Your task to perform on an android device: Add apple airpods pro to the cart on newegg.com Image 0: 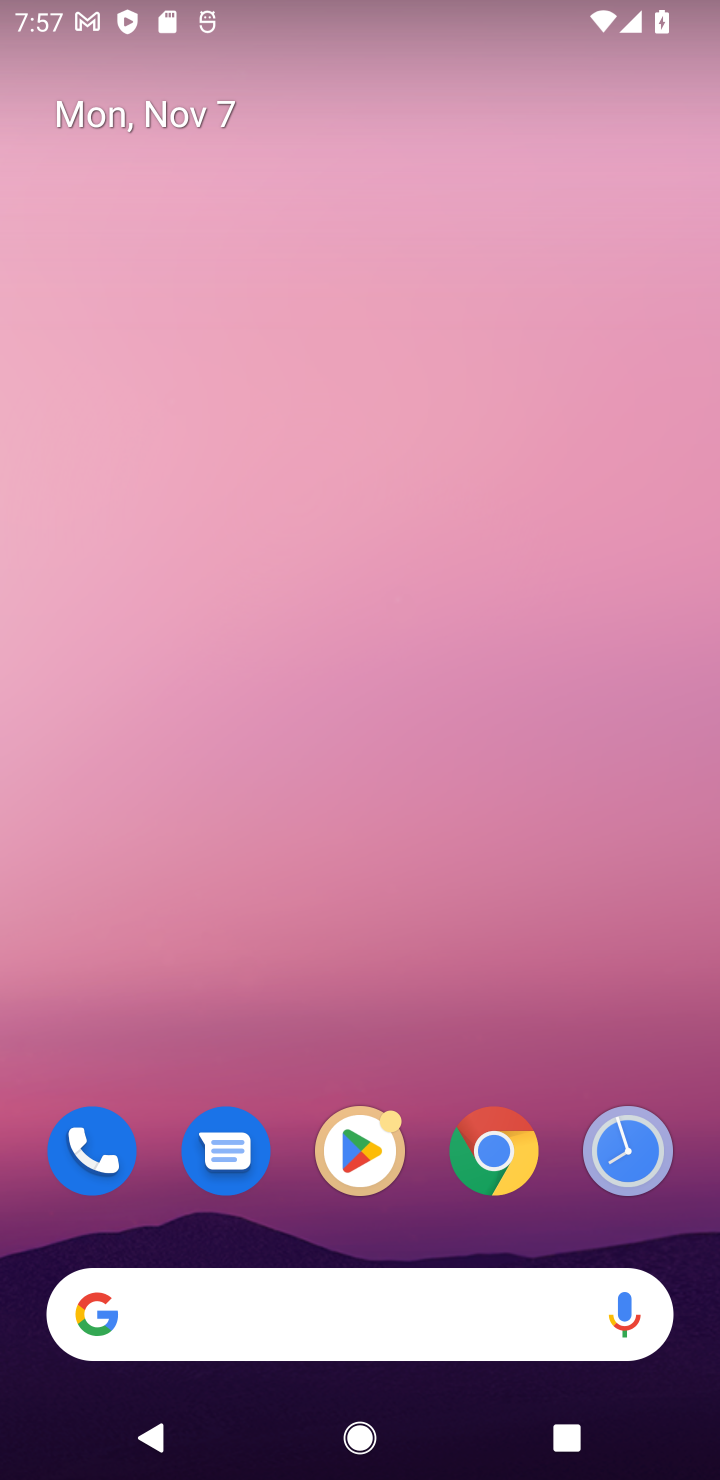
Step 0: click (505, 1146)
Your task to perform on an android device: Add apple airpods pro to the cart on newegg.com Image 1: 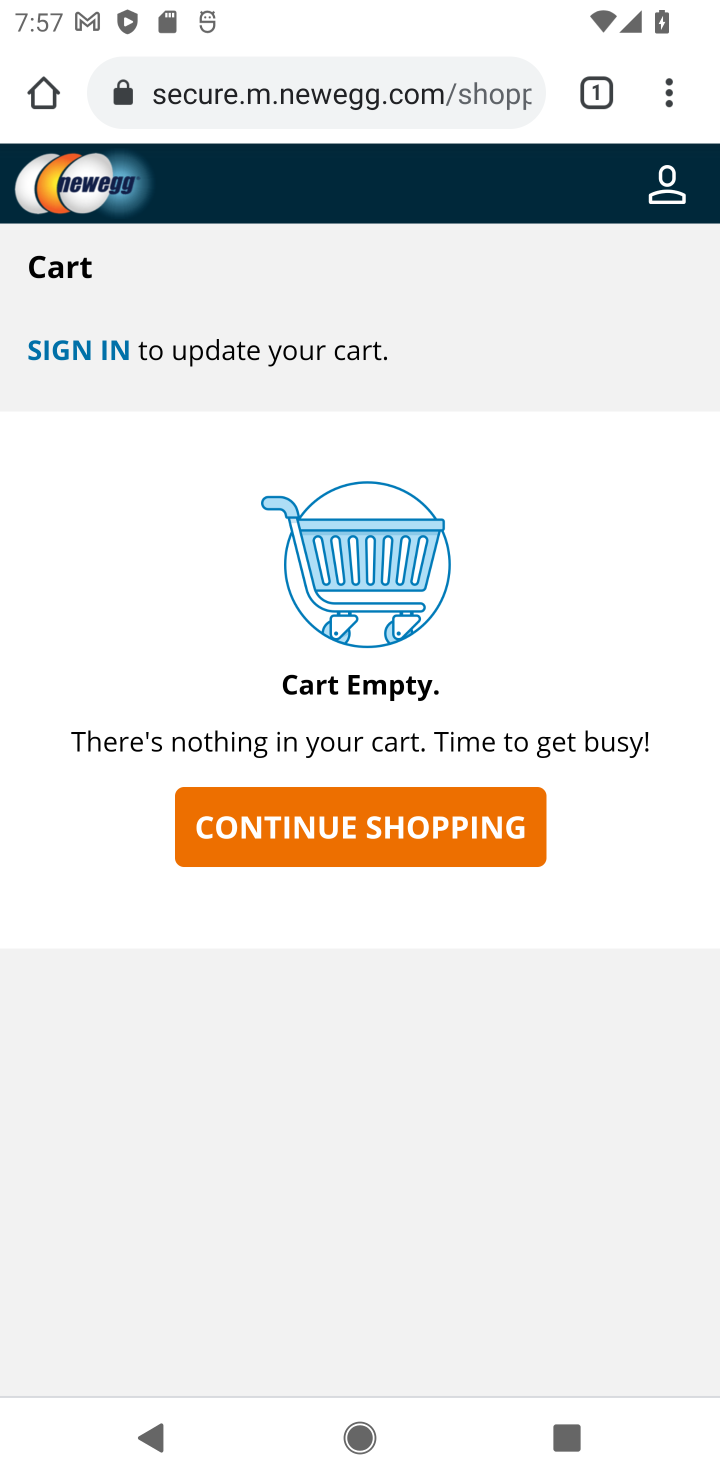
Step 1: press back button
Your task to perform on an android device: Add apple airpods pro to the cart on newegg.com Image 2: 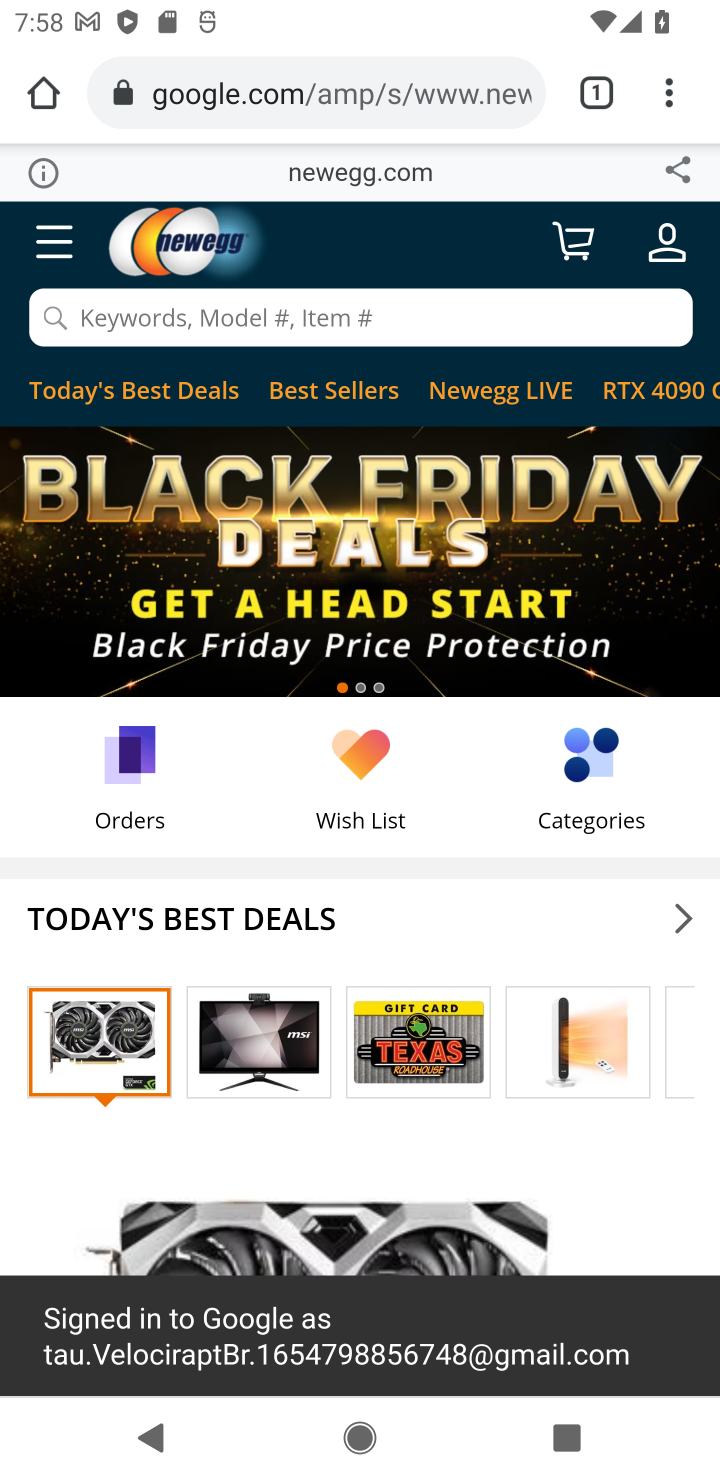
Step 2: click (519, 253)
Your task to perform on an android device: Add apple airpods pro to the cart on newegg.com Image 3: 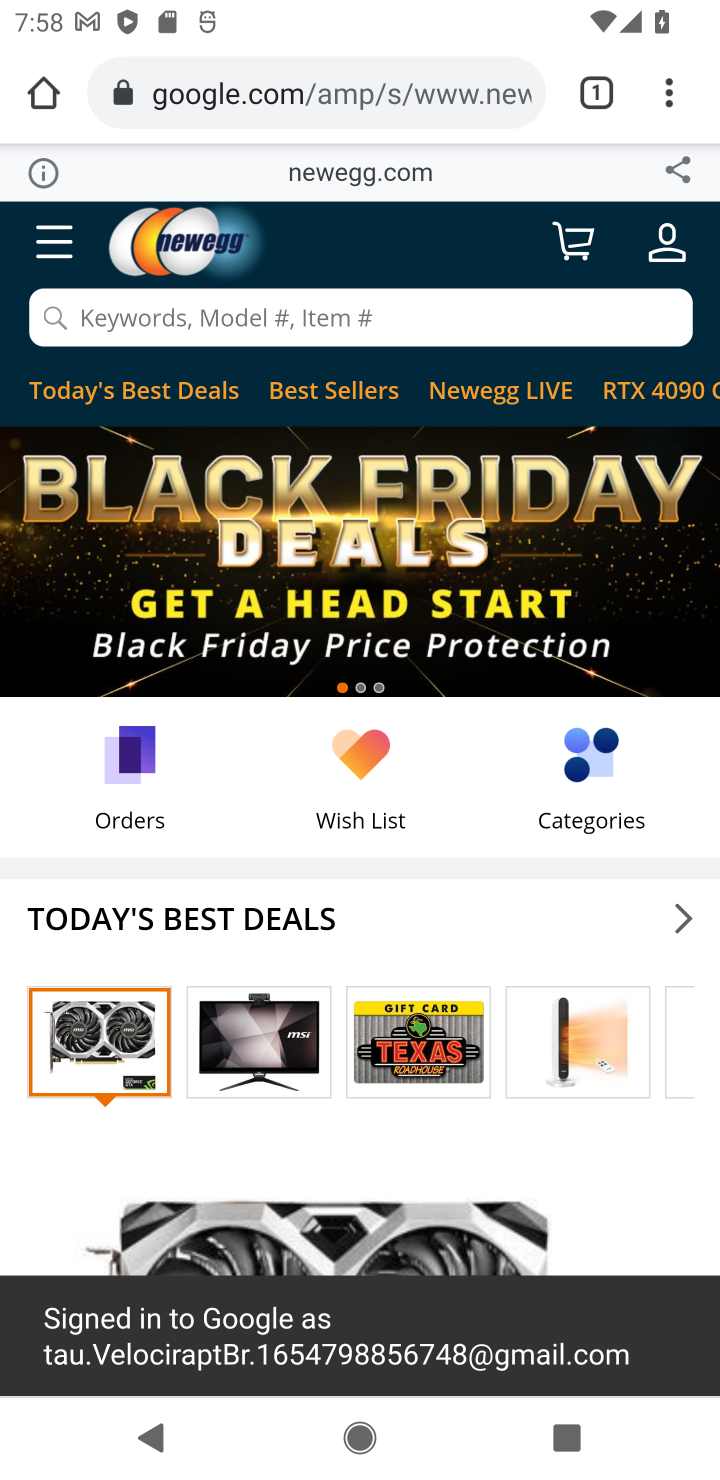
Step 3: click (493, 303)
Your task to perform on an android device: Add apple airpods pro to the cart on newegg.com Image 4: 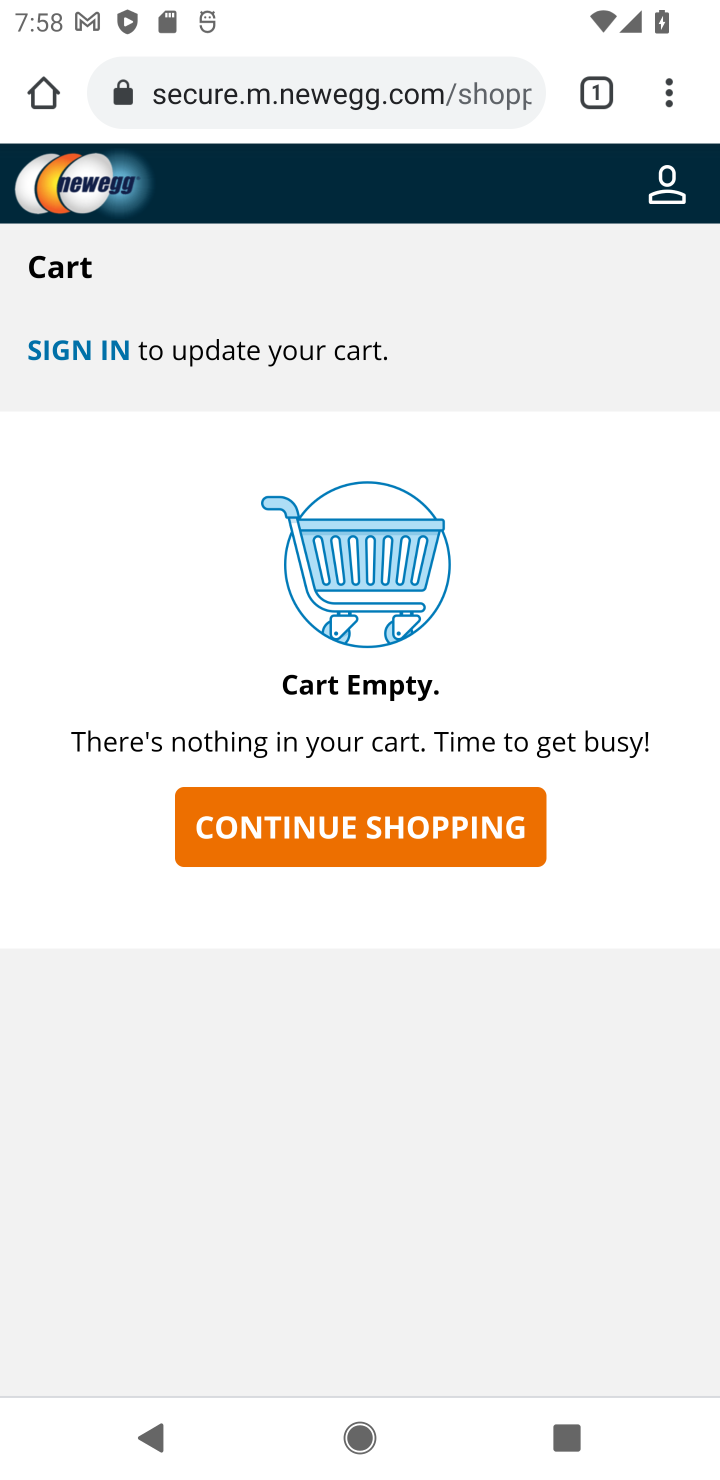
Step 4: press back button
Your task to perform on an android device: Add apple airpods pro to the cart on newegg.com Image 5: 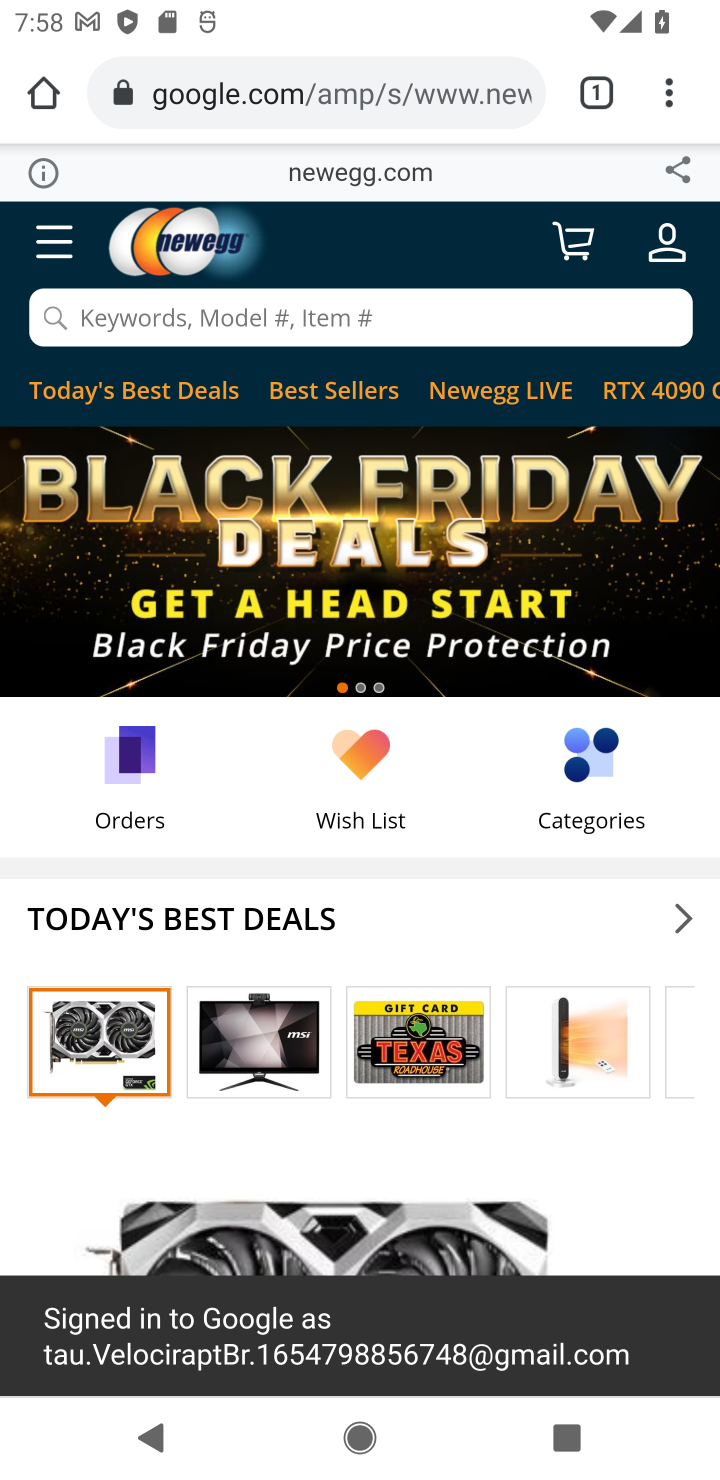
Step 5: click (535, 304)
Your task to perform on an android device: Add apple airpods pro to the cart on newegg.com Image 6: 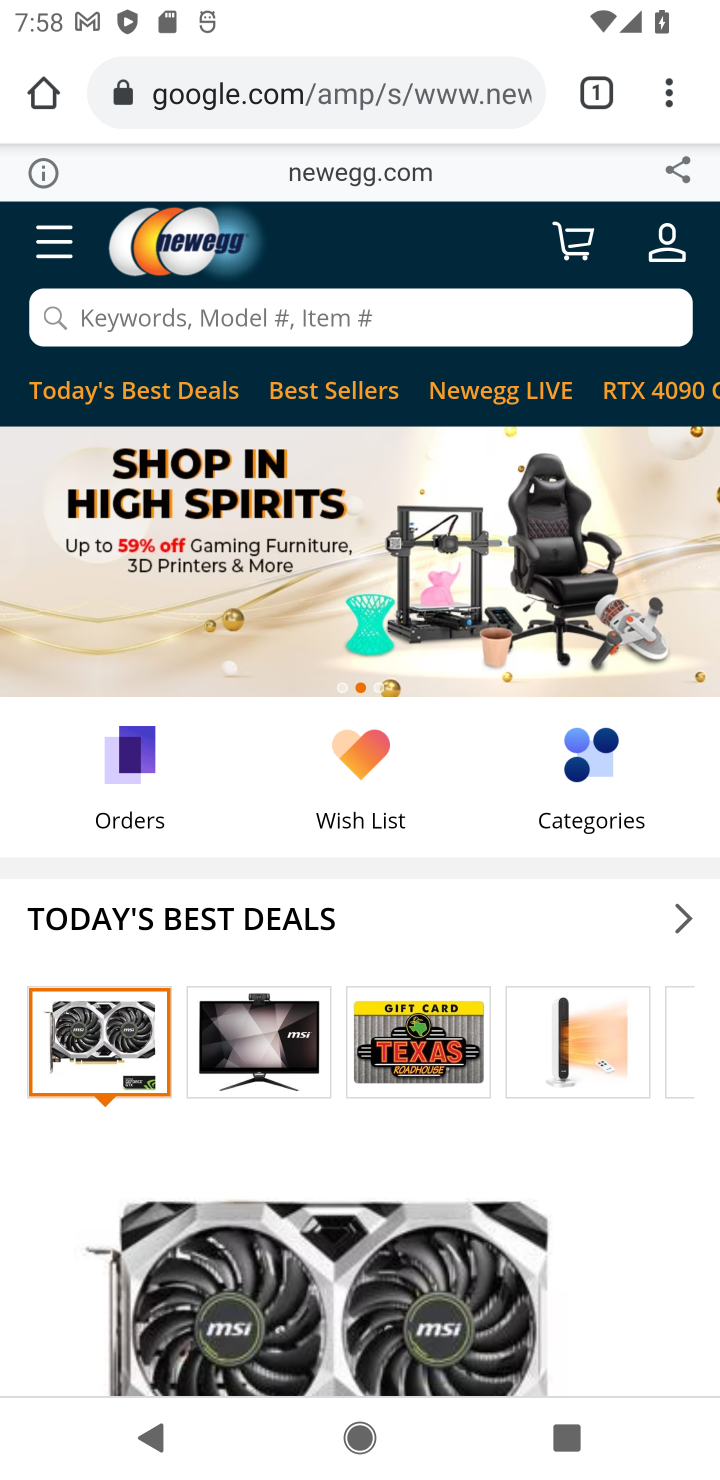
Step 6: type "apple airpods pro"
Your task to perform on an android device: Add apple airpods pro to the cart on newegg.com Image 7: 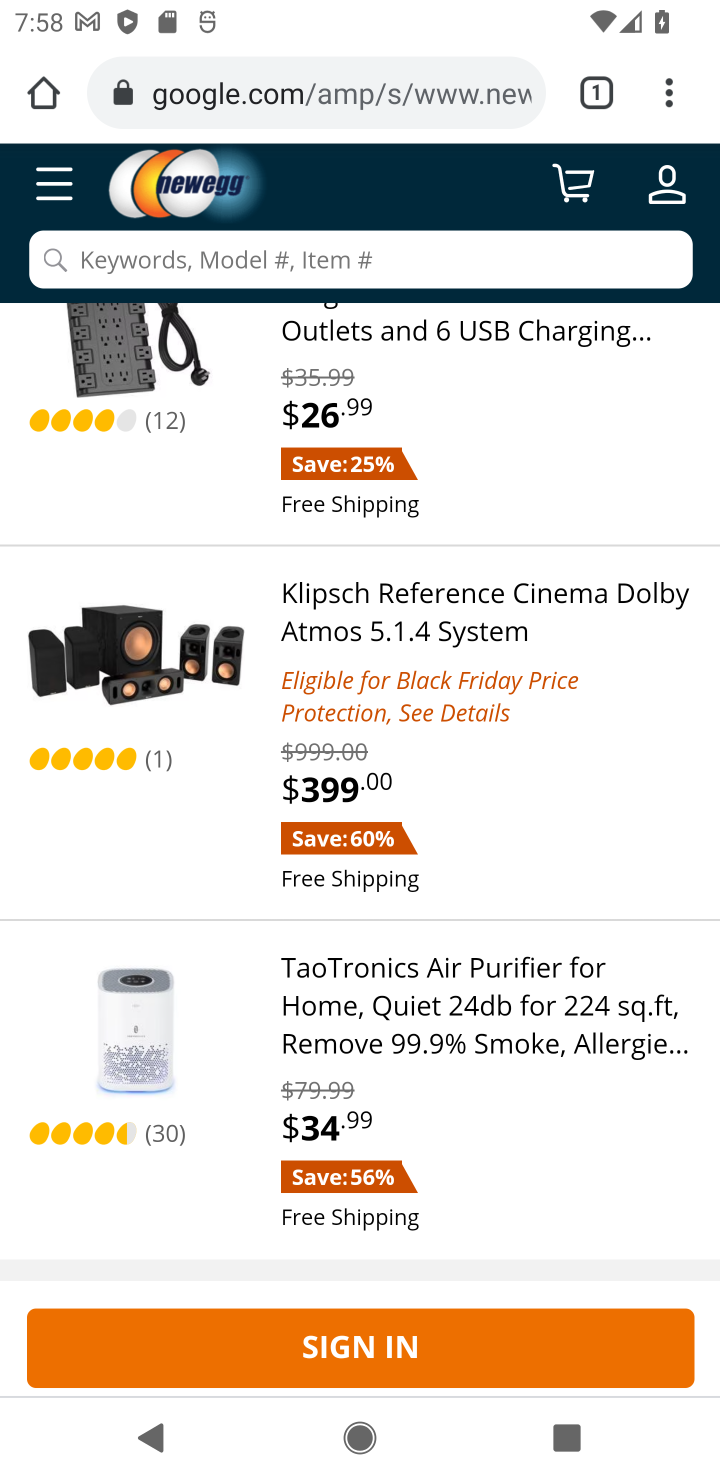
Step 7: drag from (506, 548) to (605, 1307)
Your task to perform on an android device: Add apple airpods pro to the cart on newegg.com Image 8: 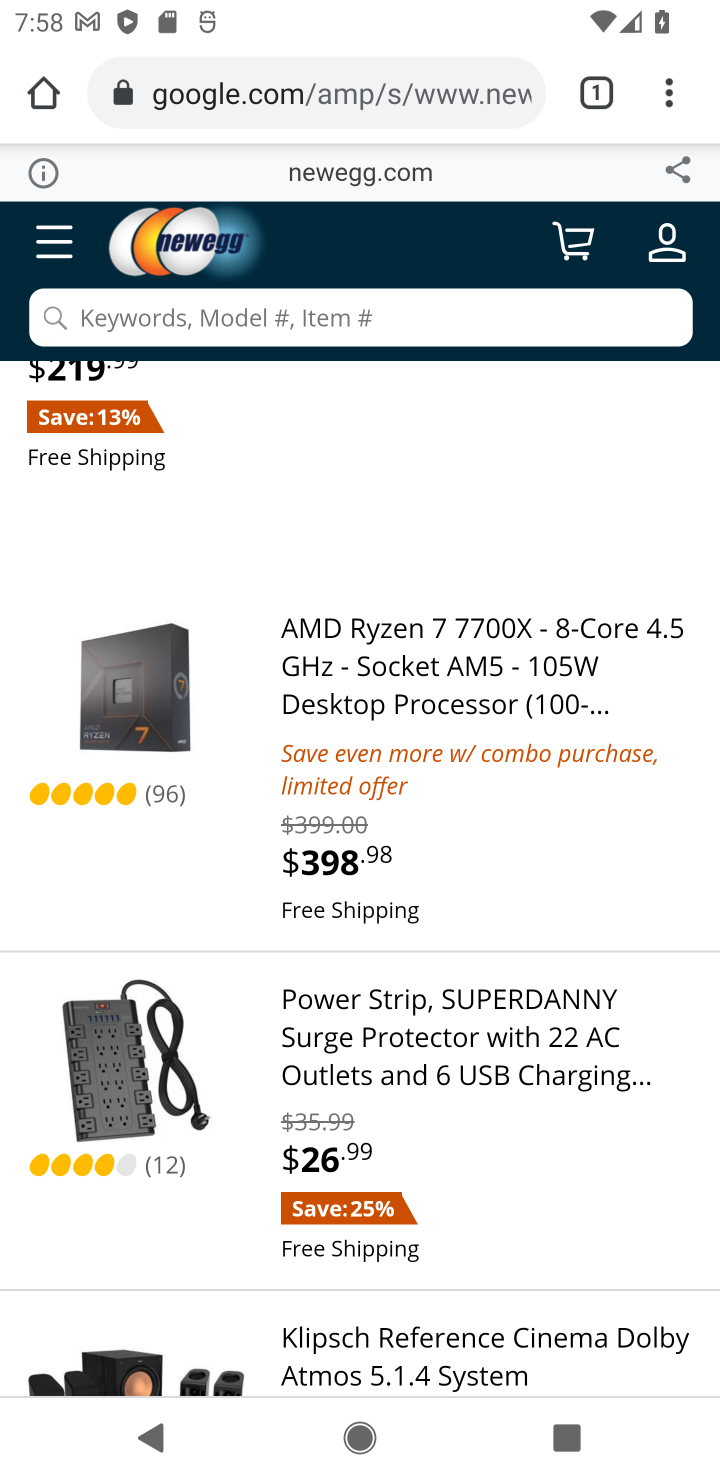
Step 8: drag from (559, 827) to (596, 559)
Your task to perform on an android device: Add apple airpods pro to the cart on newegg.com Image 9: 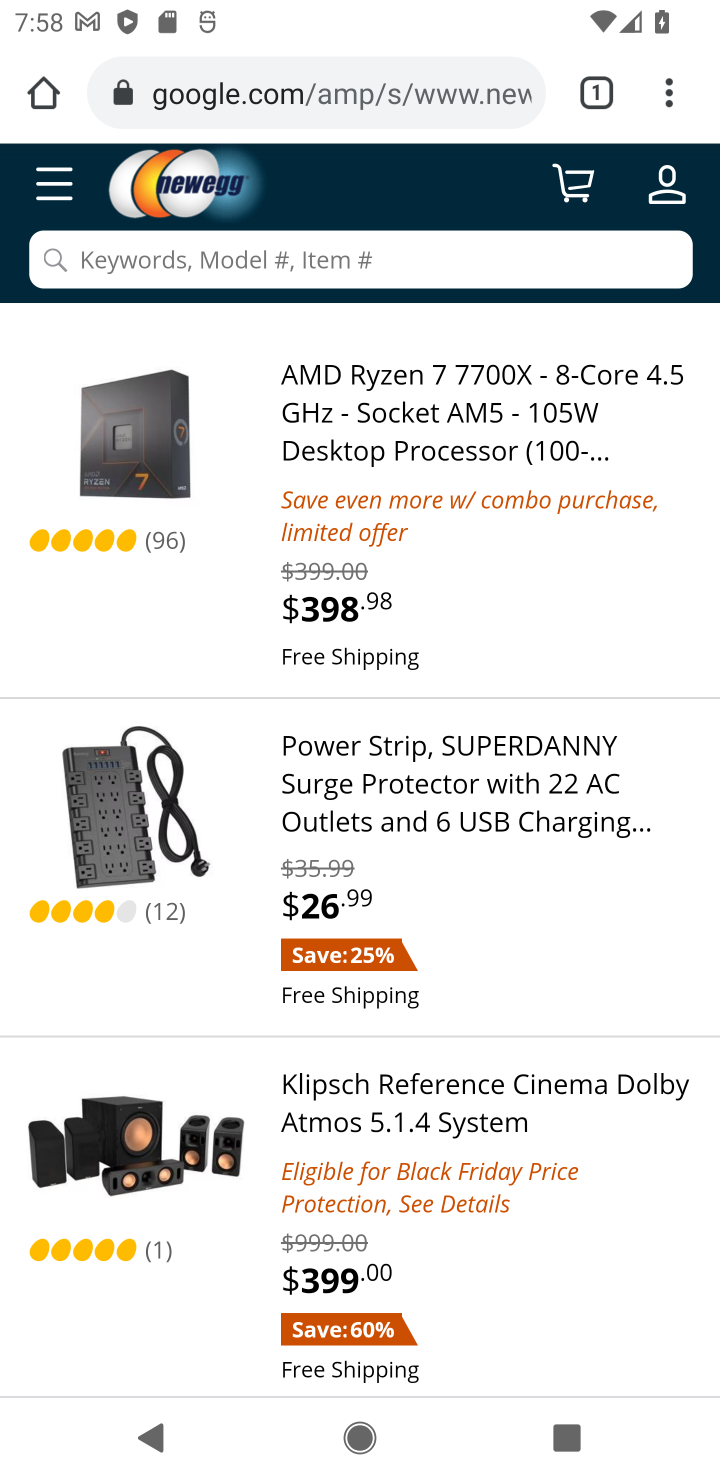
Step 9: drag from (628, 1095) to (599, 667)
Your task to perform on an android device: Add apple airpods pro to the cart on newegg.com Image 10: 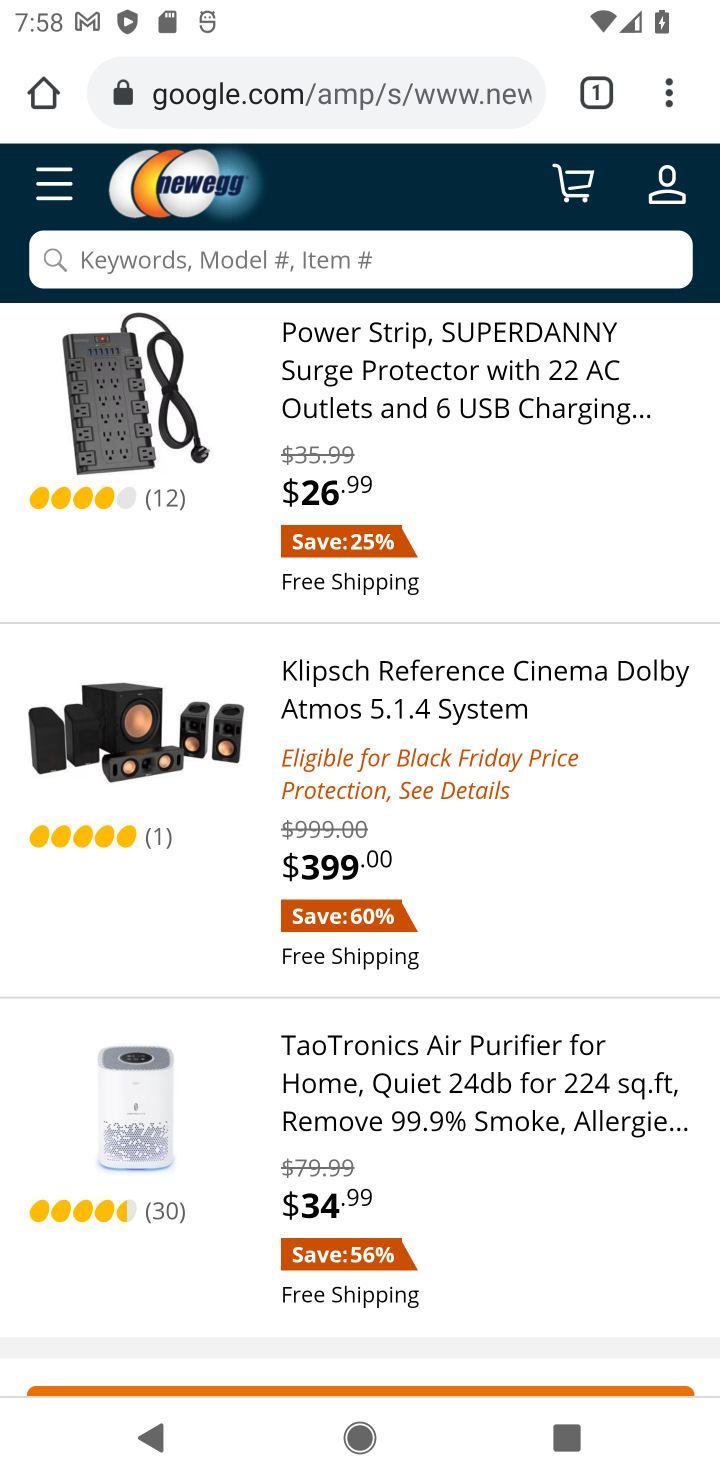
Step 10: drag from (604, 1203) to (556, 786)
Your task to perform on an android device: Add apple airpods pro to the cart on newegg.com Image 11: 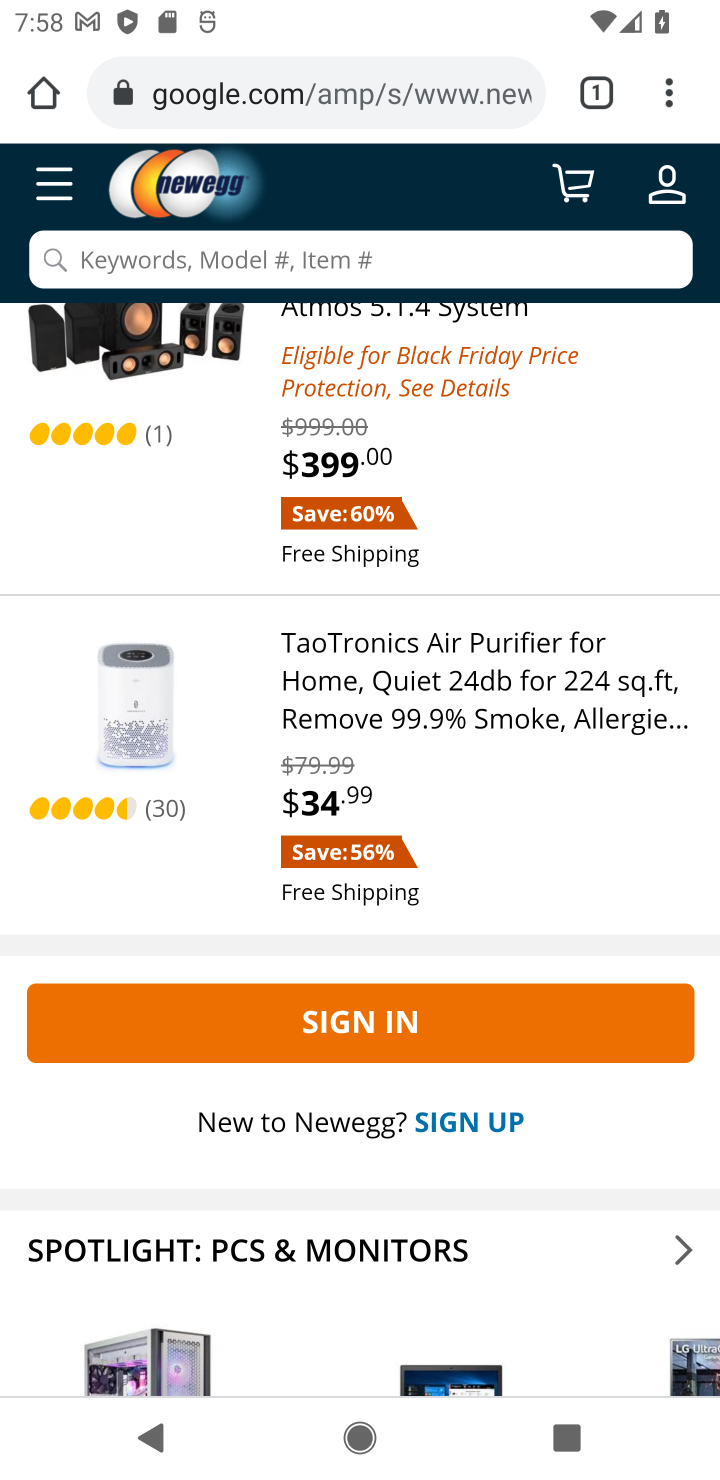
Step 11: drag from (583, 1199) to (535, 600)
Your task to perform on an android device: Add apple airpods pro to the cart on newegg.com Image 12: 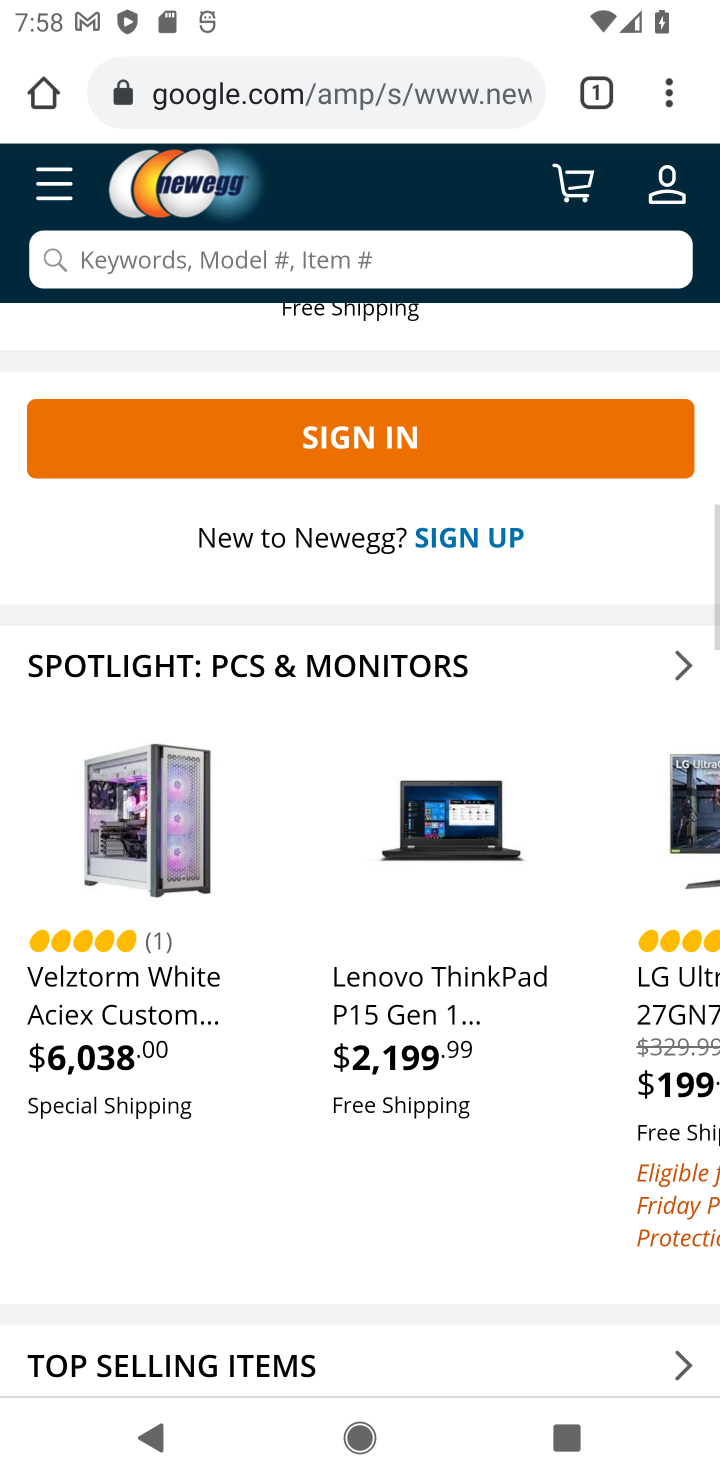
Step 12: click (558, 250)
Your task to perform on an android device: Add apple airpods pro to the cart on newegg.com Image 13: 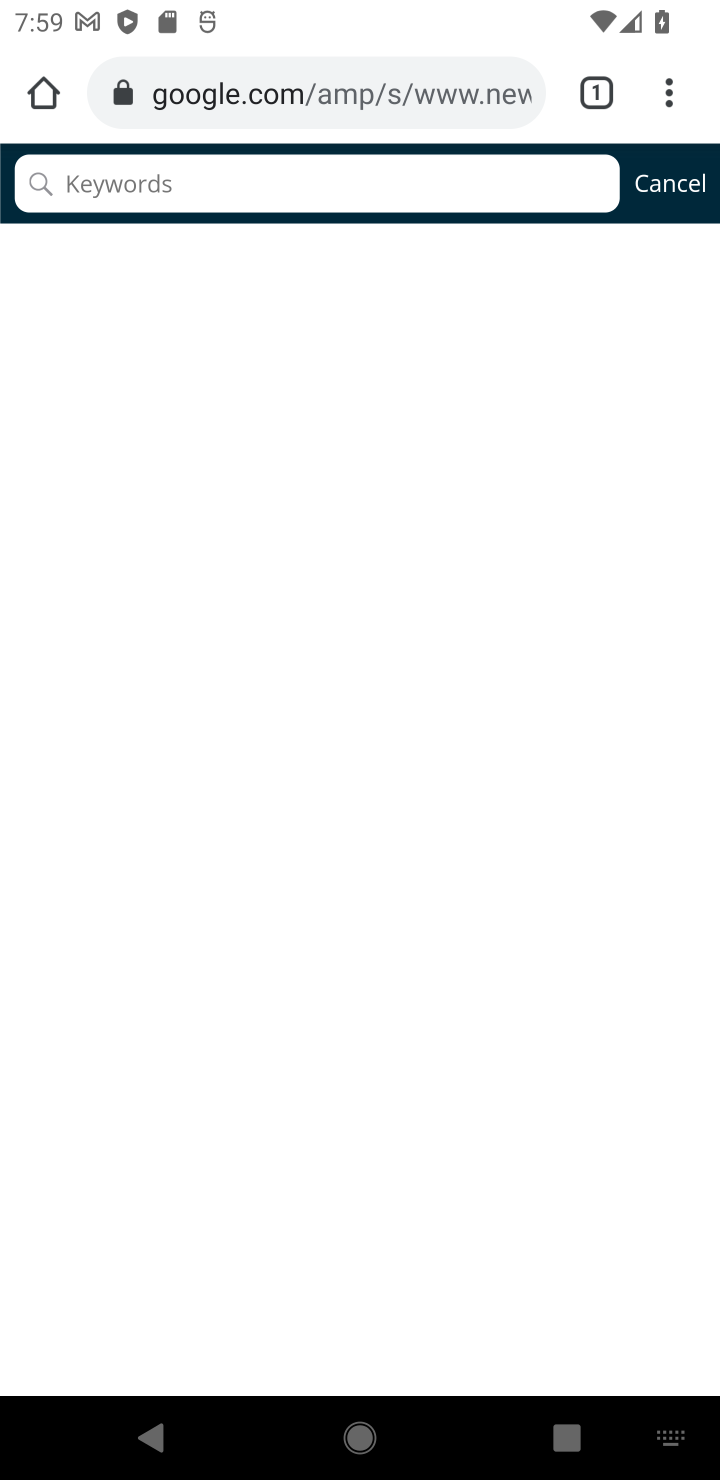
Step 13: type "apple airpods pro"
Your task to perform on an android device: Add apple airpods pro to the cart on newegg.com Image 14: 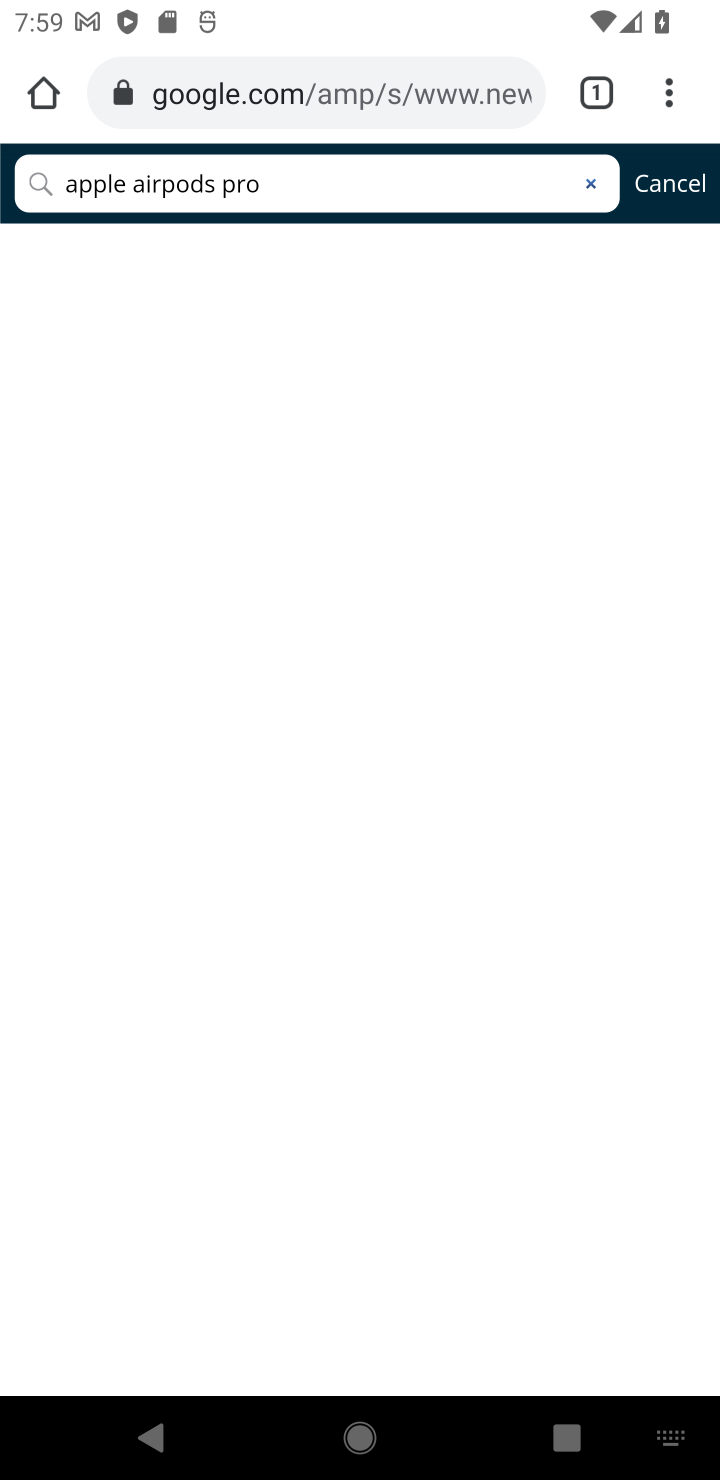
Step 14: click (520, 394)
Your task to perform on an android device: Add apple airpods pro to the cart on newegg.com Image 15: 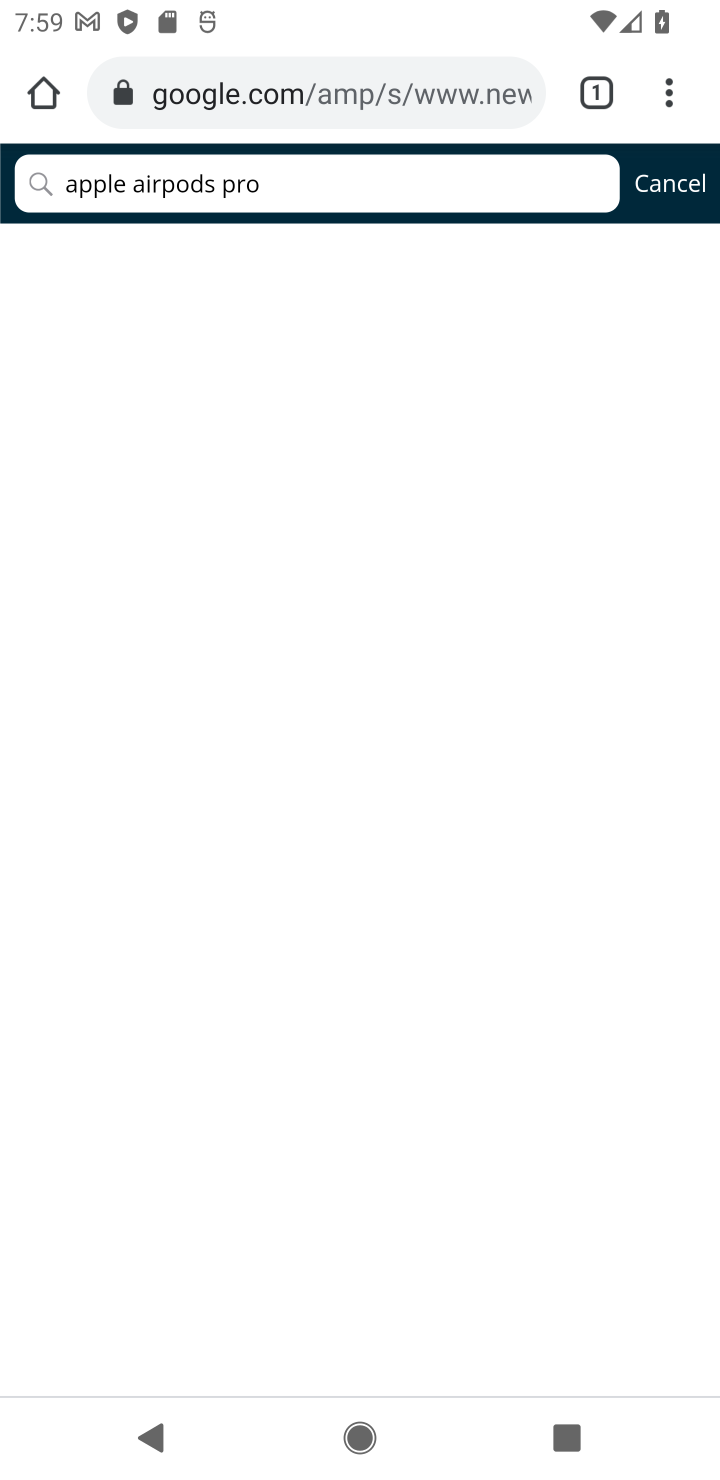
Step 15: task complete